Your task to perform on an android device: Go to battery settings Image 0: 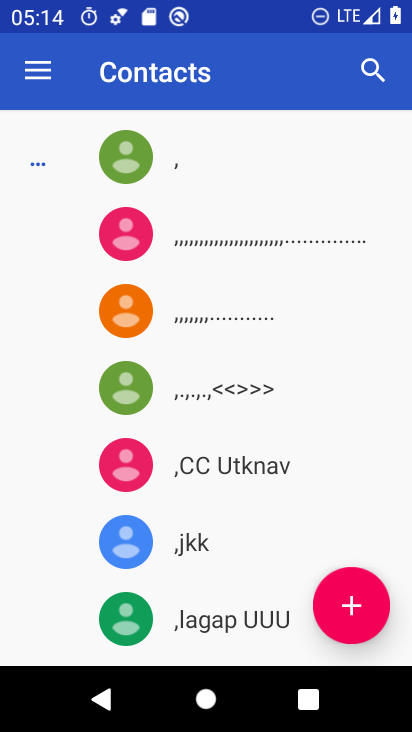
Step 0: press back button
Your task to perform on an android device: Go to battery settings Image 1: 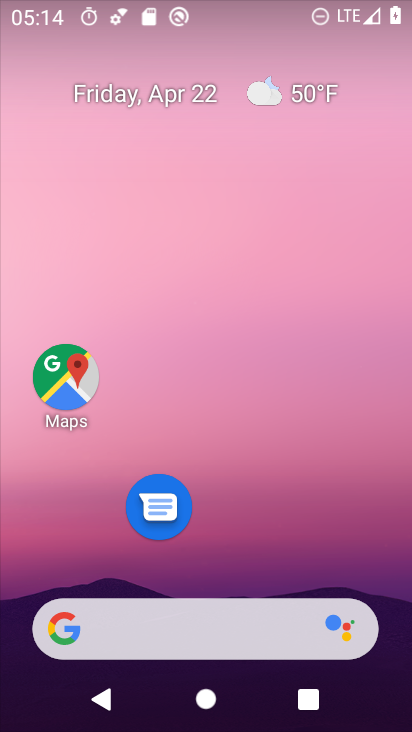
Step 1: drag from (206, 518) to (239, 35)
Your task to perform on an android device: Go to battery settings Image 2: 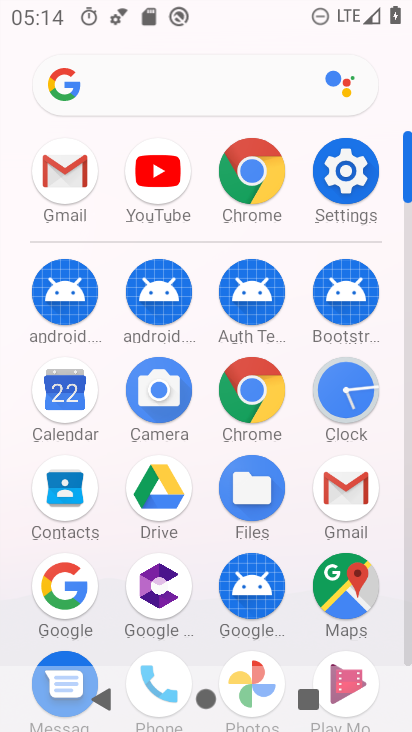
Step 2: click (330, 185)
Your task to perform on an android device: Go to battery settings Image 3: 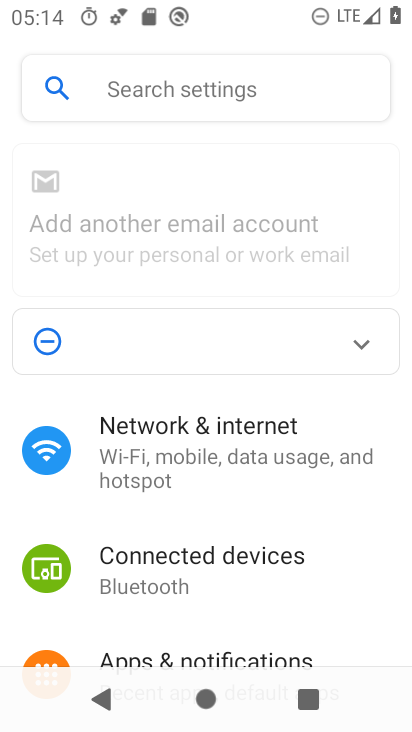
Step 3: drag from (181, 572) to (309, 37)
Your task to perform on an android device: Go to battery settings Image 4: 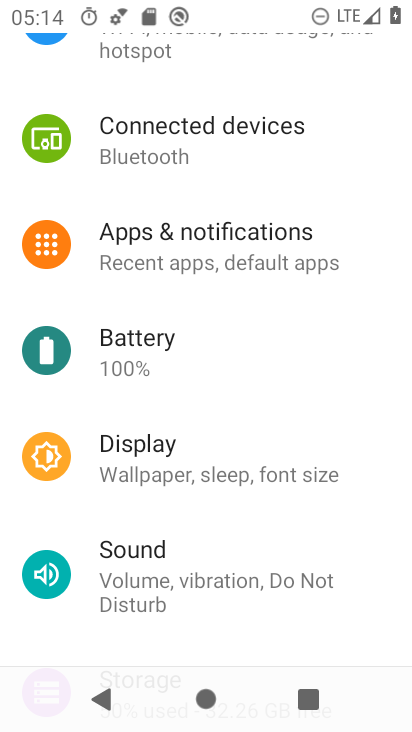
Step 4: drag from (188, 594) to (313, 50)
Your task to perform on an android device: Go to battery settings Image 5: 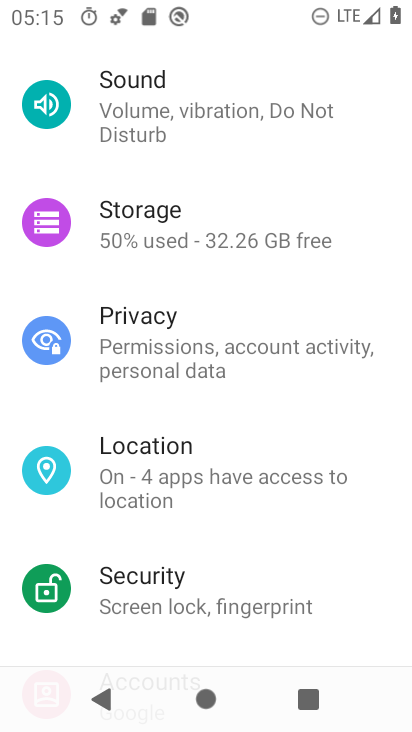
Step 5: drag from (230, 156) to (155, 626)
Your task to perform on an android device: Go to battery settings Image 6: 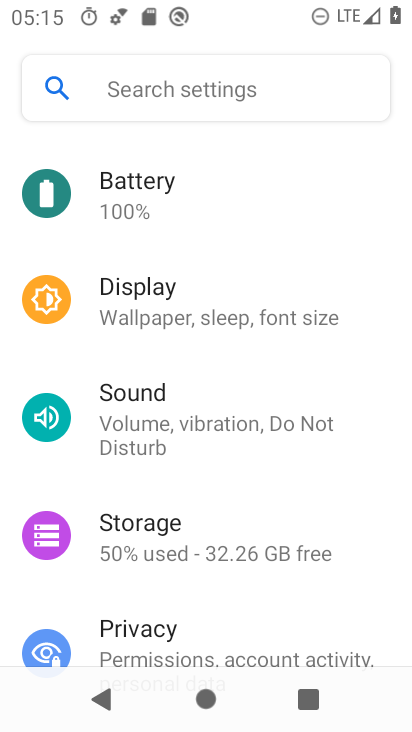
Step 6: click (188, 196)
Your task to perform on an android device: Go to battery settings Image 7: 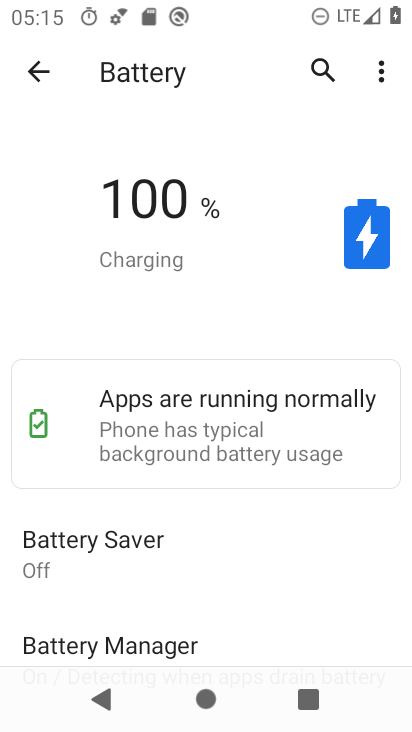
Step 7: task complete